Your task to perform on an android device: toggle airplane mode Image 0: 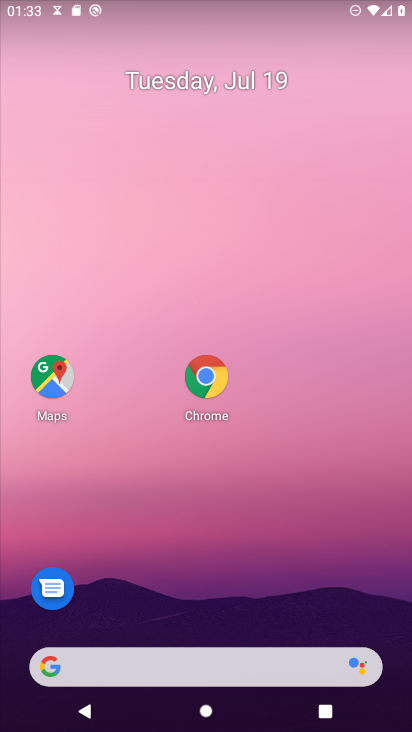
Step 0: press home button
Your task to perform on an android device: toggle airplane mode Image 1: 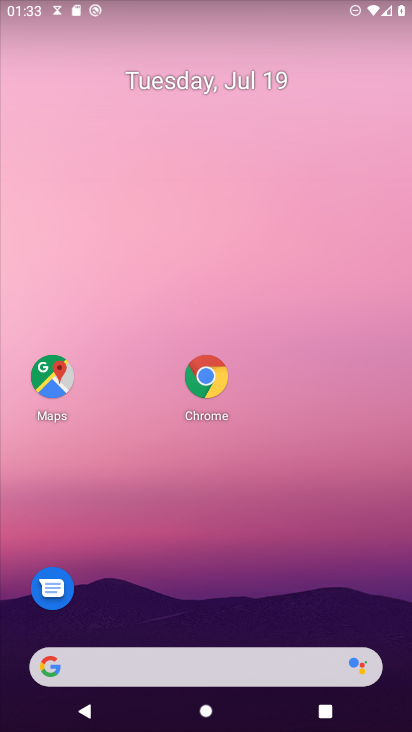
Step 1: drag from (211, 38) to (244, 553)
Your task to perform on an android device: toggle airplane mode Image 2: 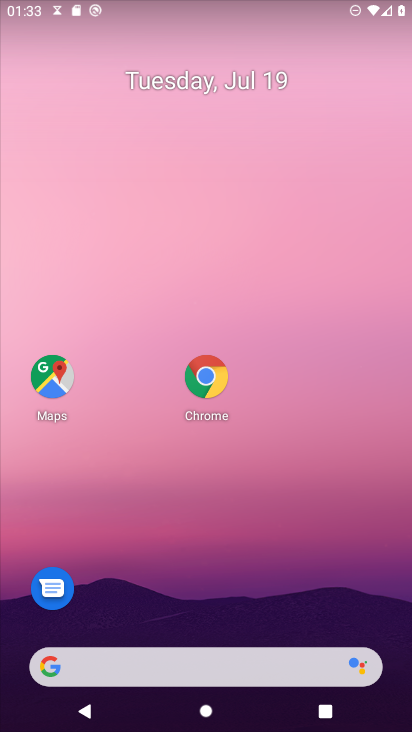
Step 2: drag from (238, 0) to (273, 425)
Your task to perform on an android device: toggle airplane mode Image 3: 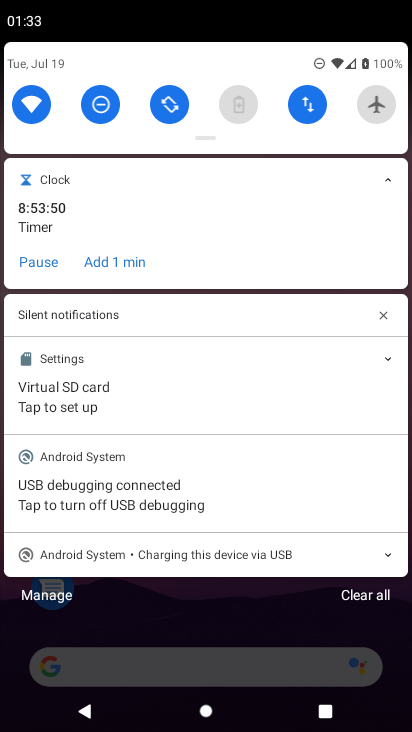
Step 3: click (375, 94)
Your task to perform on an android device: toggle airplane mode Image 4: 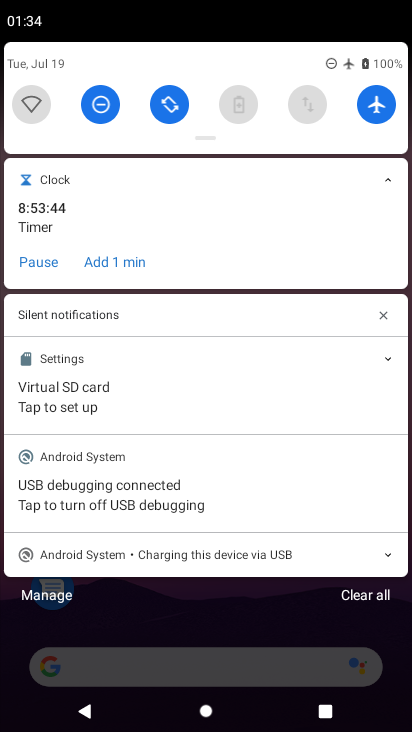
Step 4: task complete